Your task to perform on an android device: open wifi settings Image 0: 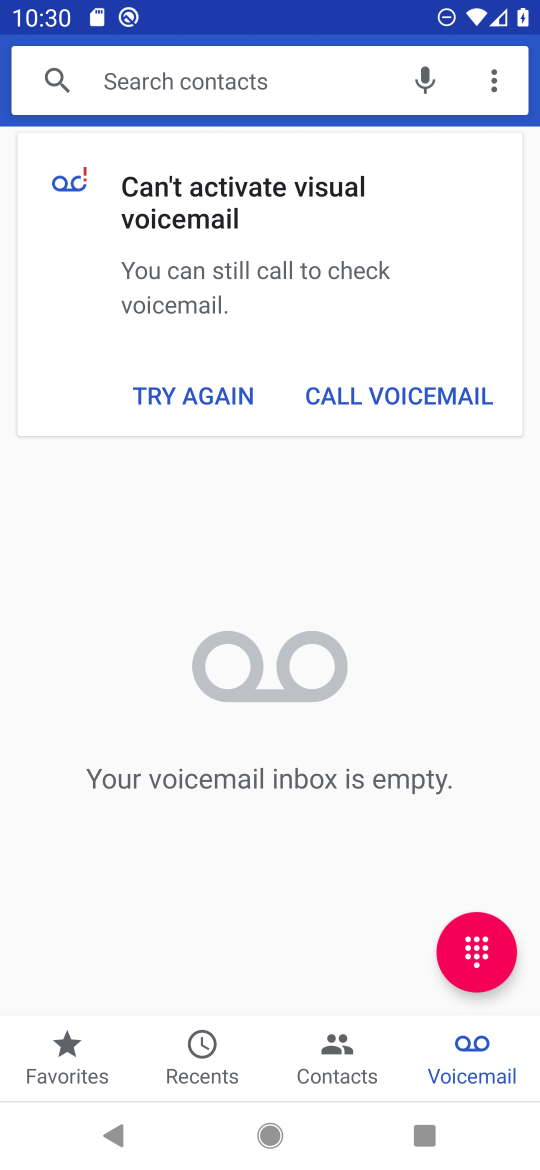
Step 0: press home button
Your task to perform on an android device: open wifi settings Image 1: 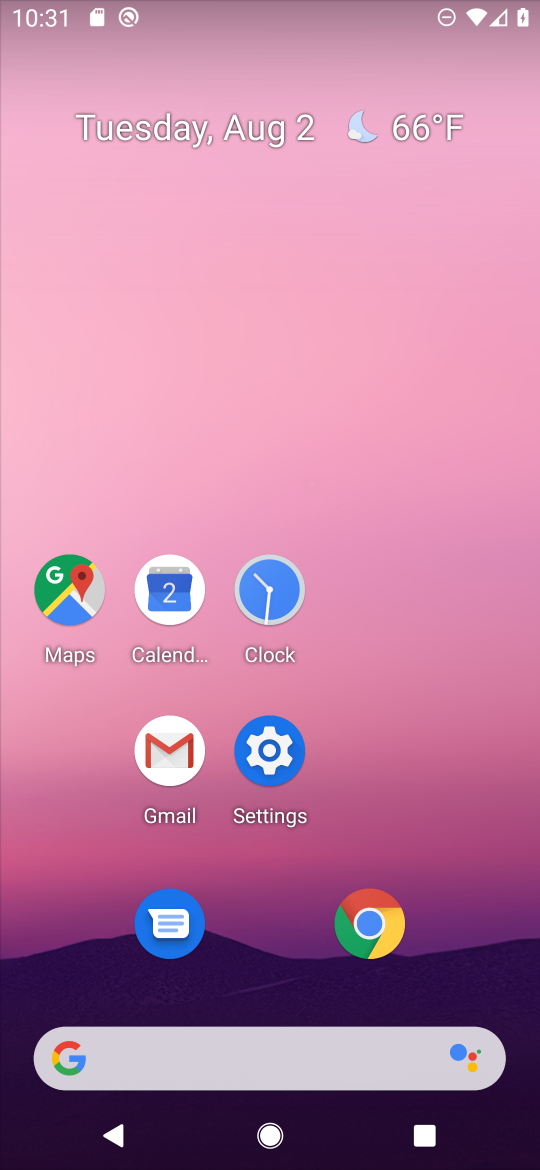
Step 1: click (287, 751)
Your task to perform on an android device: open wifi settings Image 2: 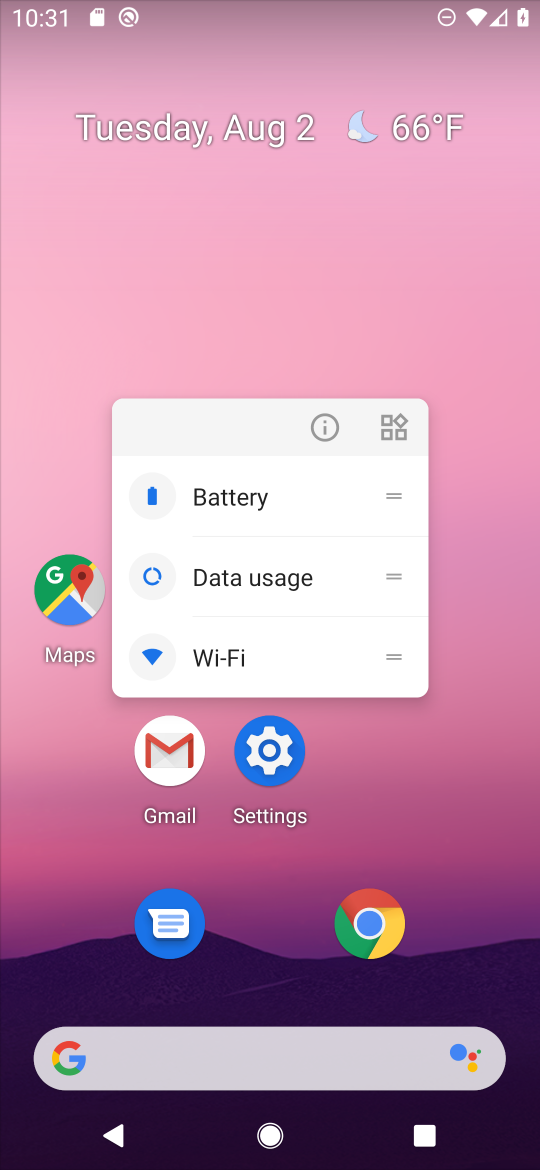
Step 2: click (283, 746)
Your task to perform on an android device: open wifi settings Image 3: 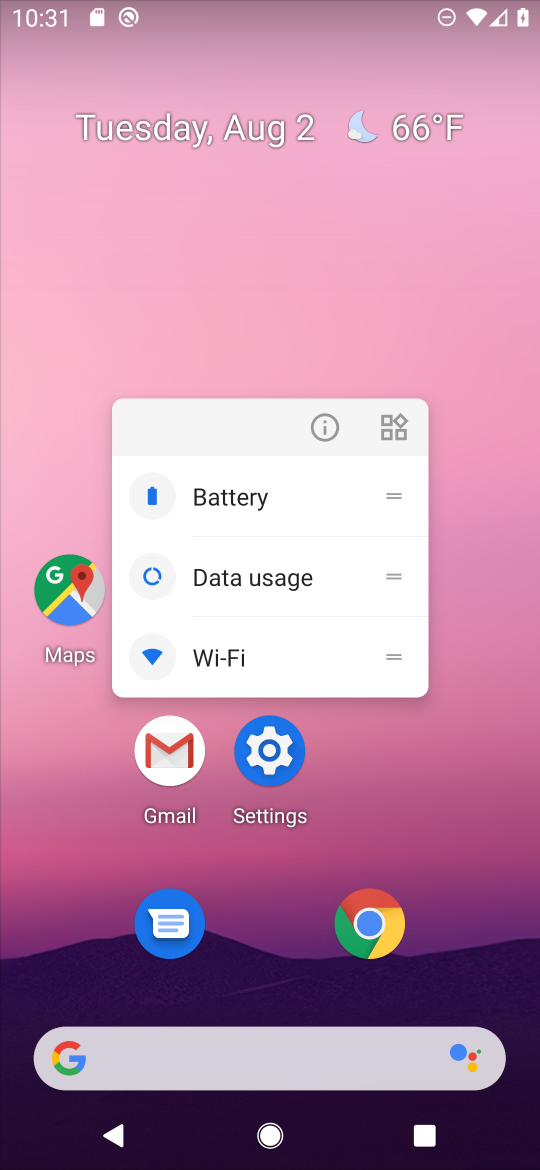
Step 3: click (267, 760)
Your task to perform on an android device: open wifi settings Image 4: 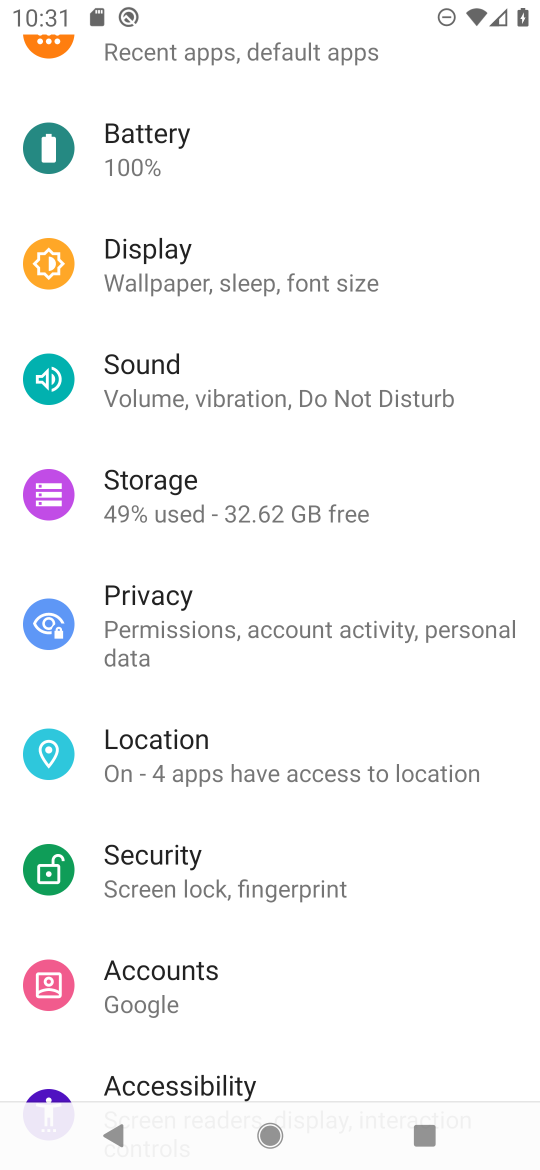
Step 4: drag from (322, 154) to (360, 811)
Your task to perform on an android device: open wifi settings Image 5: 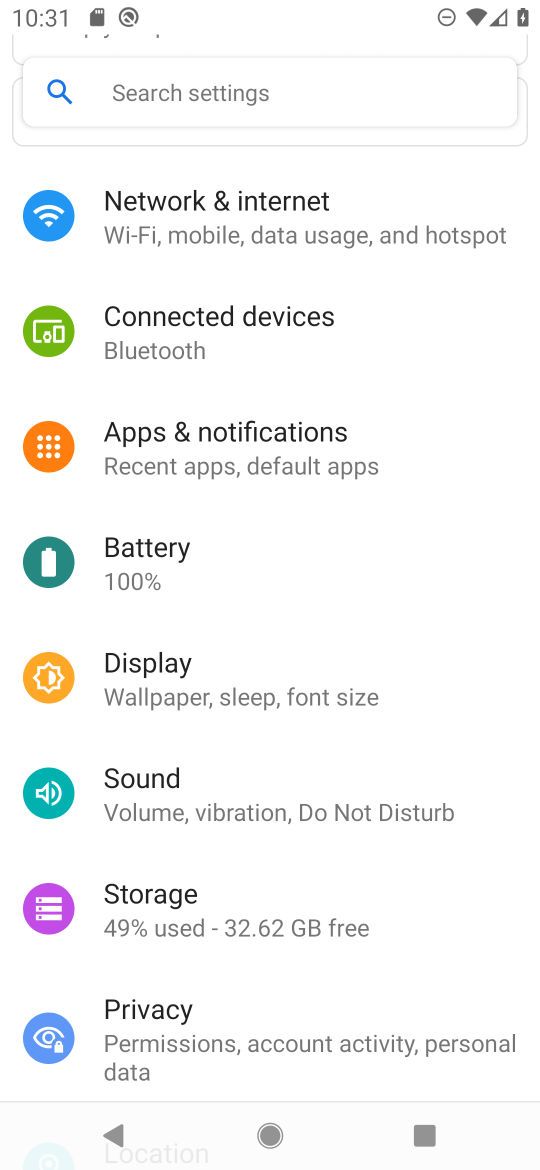
Step 5: click (258, 231)
Your task to perform on an android device: open wifi settings Image 6: 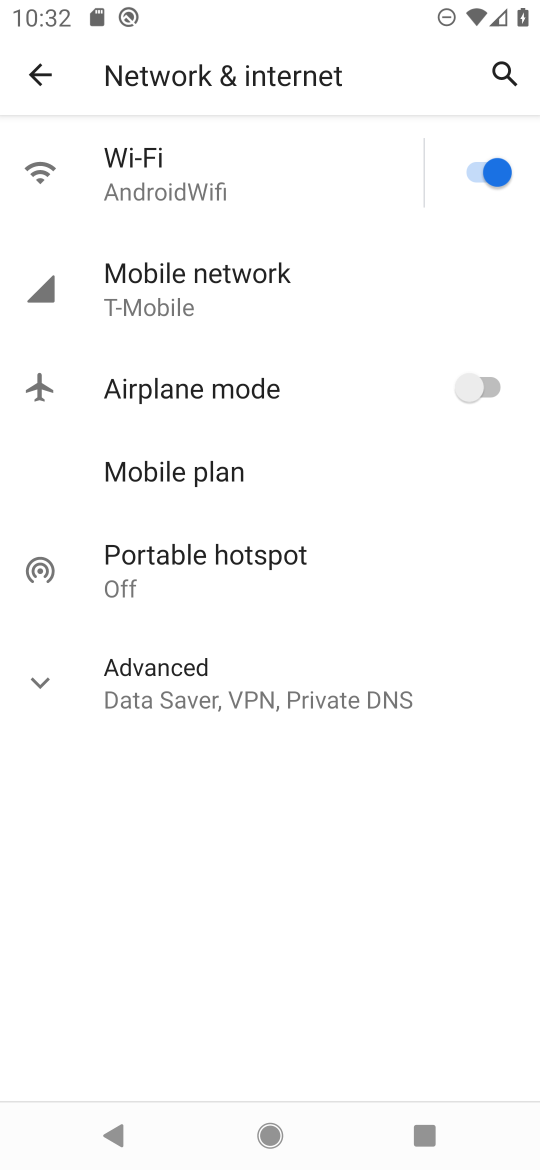
Step 6: click (143, 153)
Your task to perform on an android device: open wifi settings Image 7: 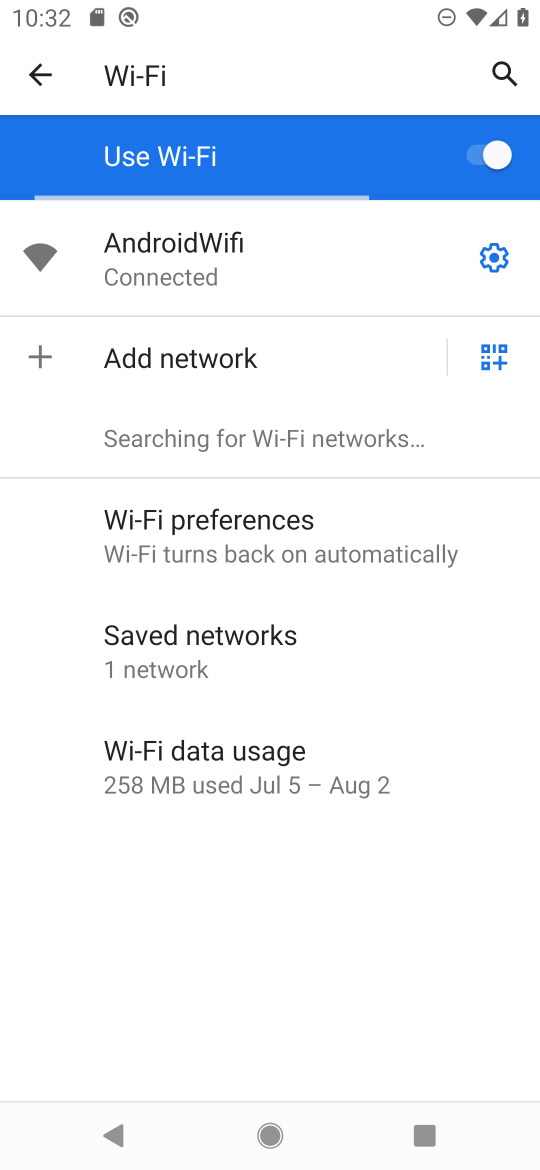
Step 7: click (486, 247)
Your task to perform on an android device: open wifi settings Image 8: 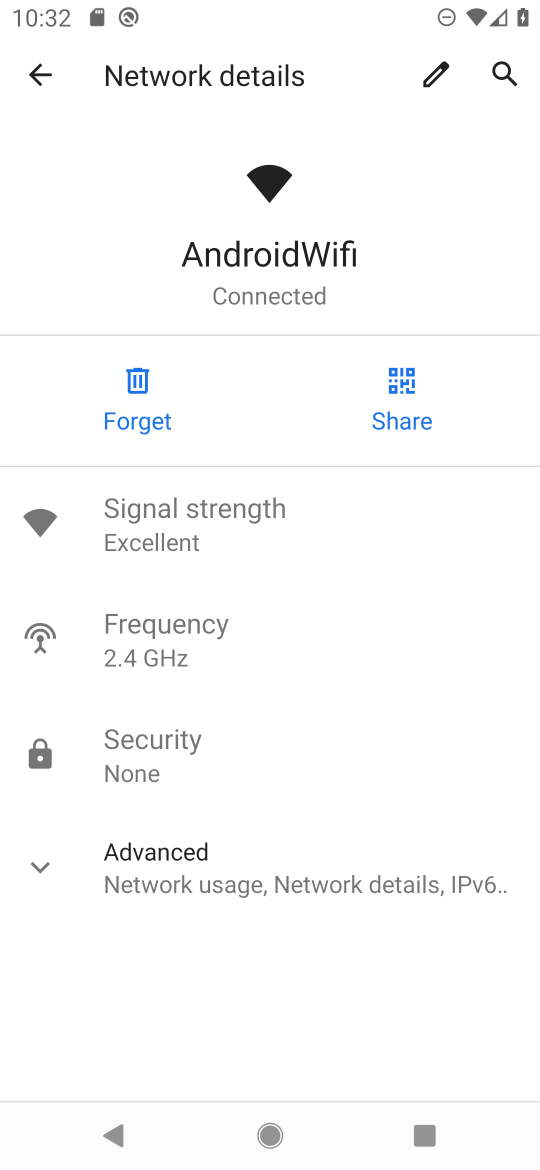
Step 8: click (45, 865)
Your task to perform on an android device: open wifi settings Image 9: 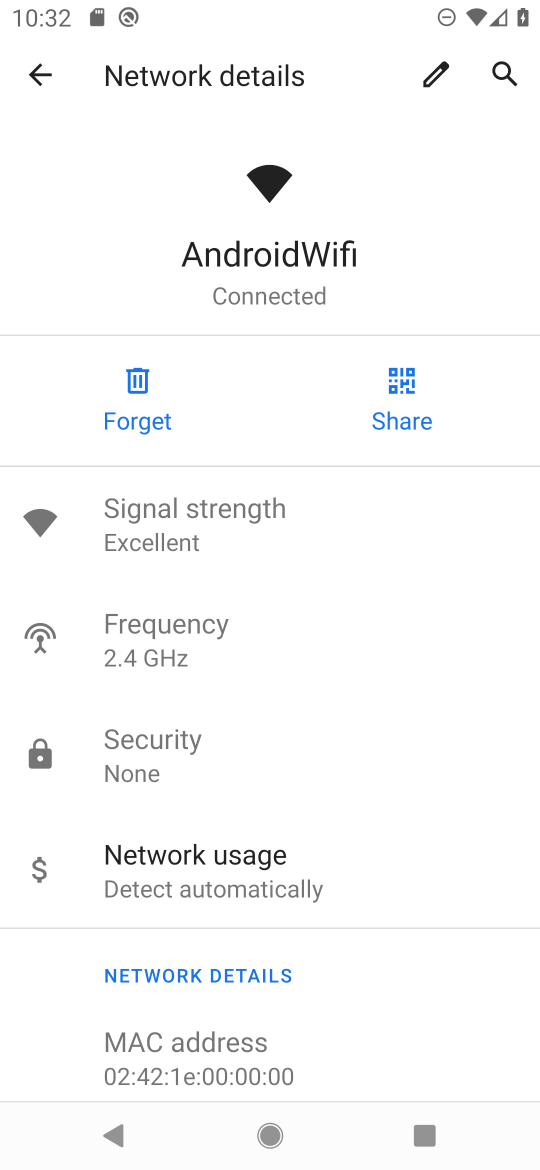
Step 9: task complete